Your task to perform on an android device: Open network settings Image 0: 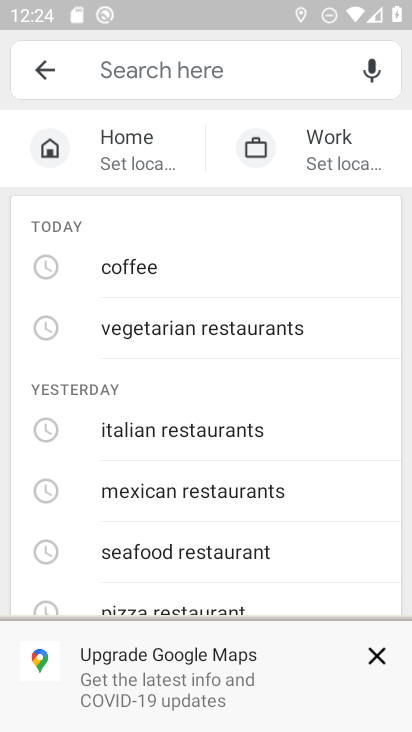
Step 0: press home button
Your task to perform on an android device: Open network settings Image 1: 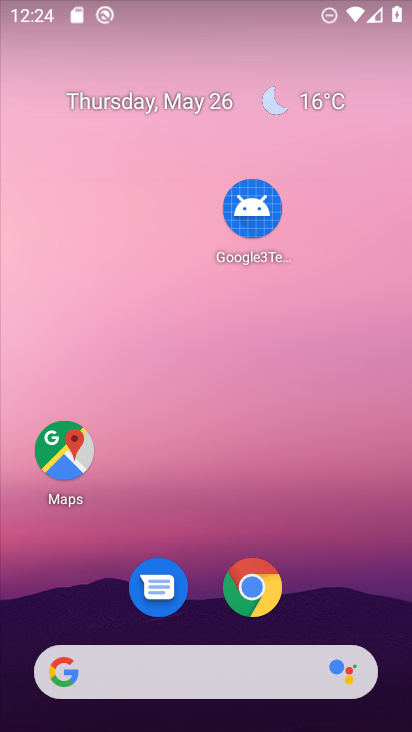
Step 1: drag from (227, 648) to (187, 148)
Your task to perform on an android device: Open network settings Image 2: 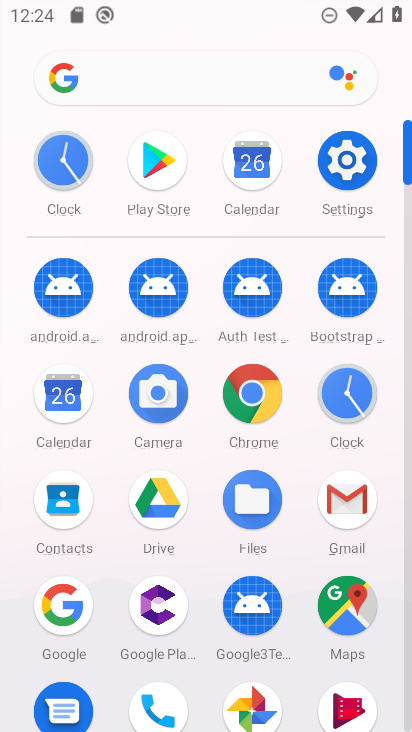
Step 2: click (359, 160)
Your task to perform on an android device: Open network settings Image 3: 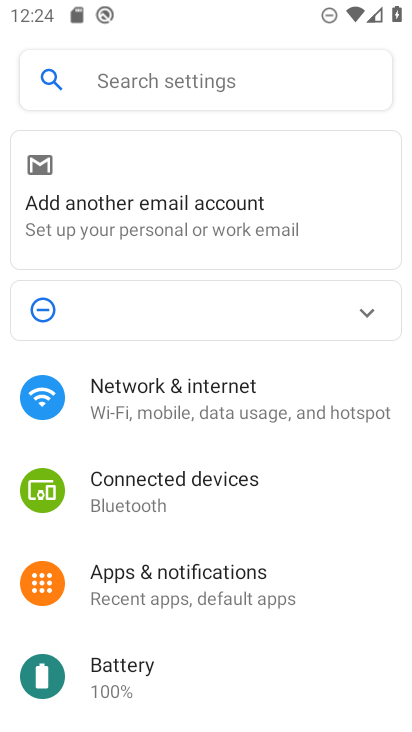
Step 3: click (127, 416)
Your task to perform on an android device: Open network settings Image 4: 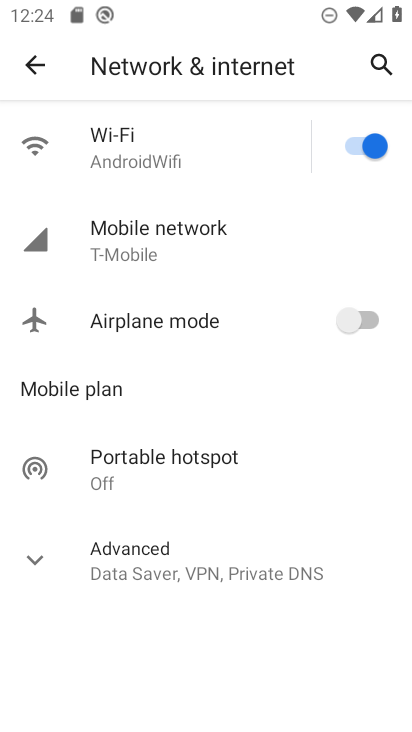
Step 4: task complete